Your task to perform on an android device: Open network settings Image 0: 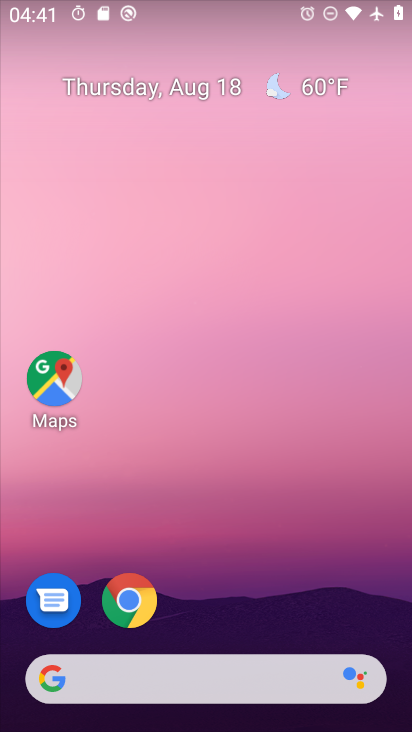
Step 0: press home button
Your task to perform on an android device: Open network settings Image 1: 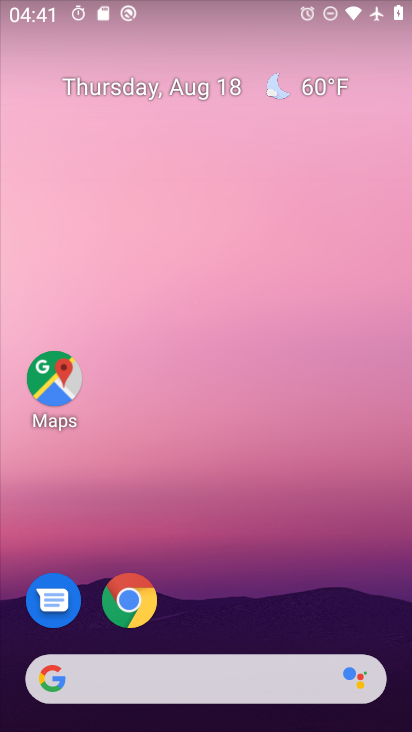
Step 1: drag from (233, 617) to (211, 60)
Your task to perform on an android device: Open network settings Image 2: 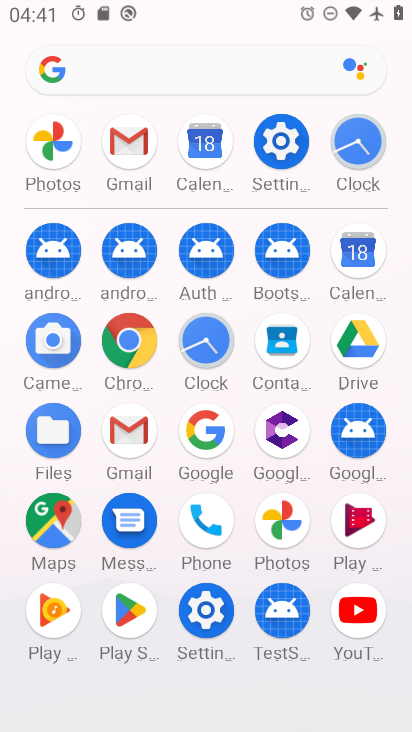
Step 2: click (277, 159)
Your task to perform on an android device: Open network settings Image 3: 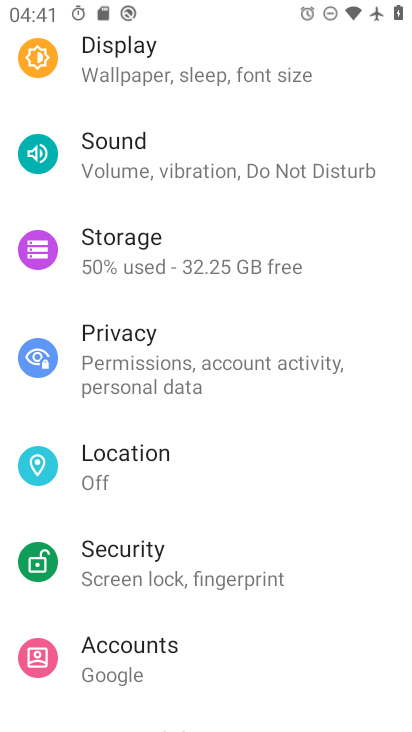
Step 3: drag from (266, 129) to (253, 728)
Your task to perform on an android device: Open network settings Image 4: 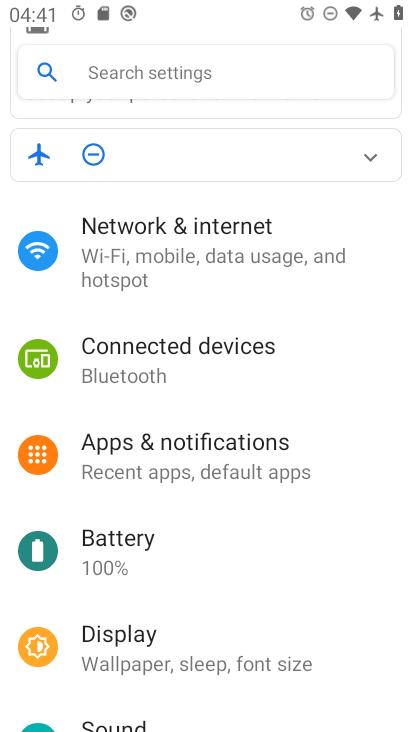
Step 4: click (154, 243)
Your task to perform on an android device: Open network settings Image 5: 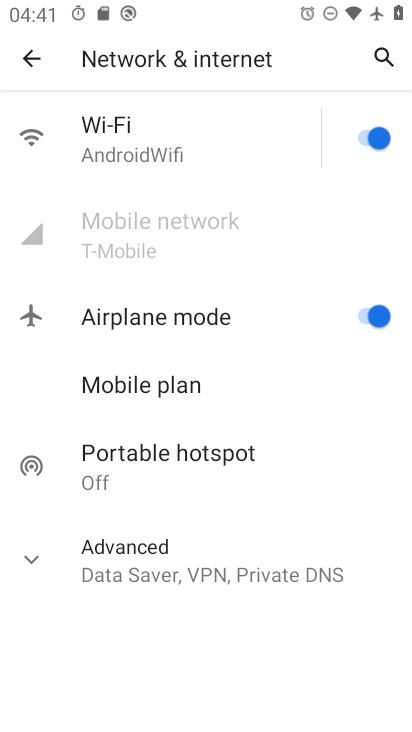
Step 5: task complete